Your task to perform on an android device: toggle priority inbox in the gmail app Image 0: 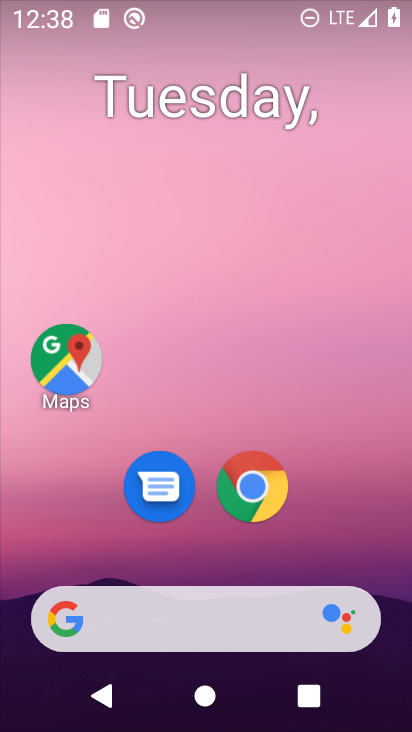
Step 0: drag from (228, 580) to (222, 164)
Your task to perform on an android device: toggle priority inbox in the gmail app Image 1: 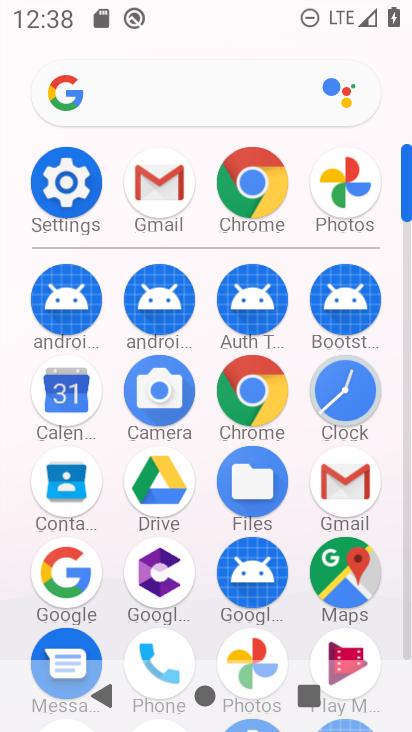
Step 1: click (347, 481)
Your task to perform on an android device: toggle priority inbox in the gmail app Image 2: 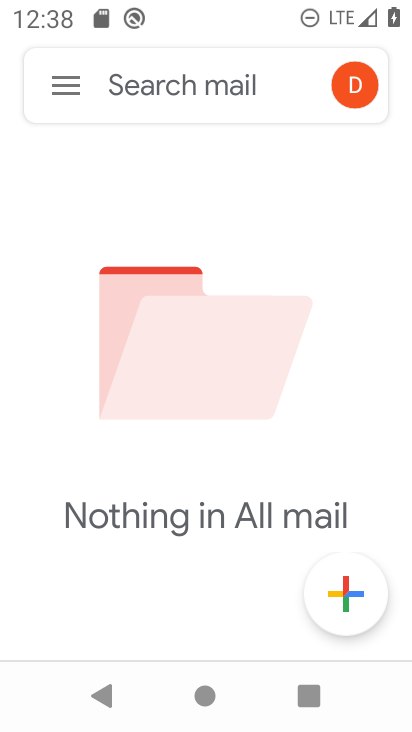
Step 2: click (60, 98)
Your task to perform on an android device: toggle priority inbox in the gmail app Image 3: 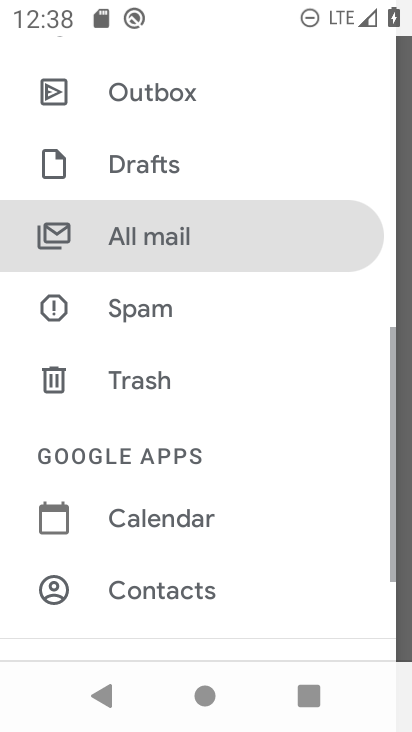
Step 3: drag from (190, 539) to (227, 84)
Your task to perform on an android device: toggle priority inbox in the gmail app Image 4: 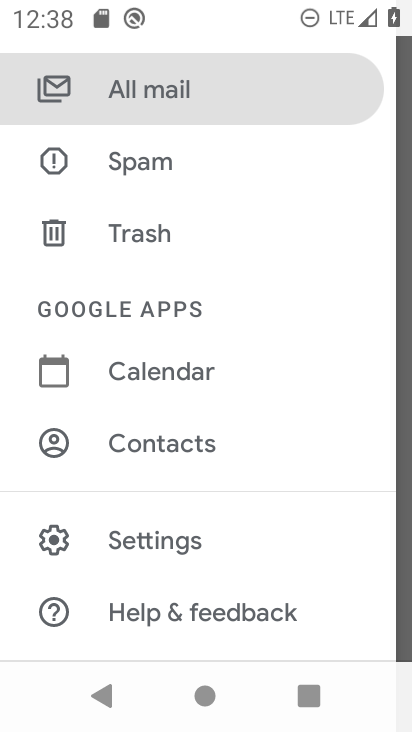
Step 4: click (161, 554)
Your task to perform on an android device: toggle priority inbox in the gmail app Image 5: 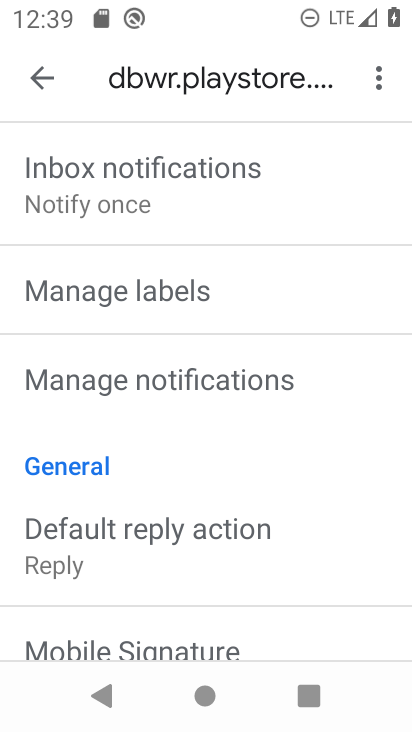
Step 5: drag from (218, 474) to (215, 311)
Your task to perform on an android device: toggle priority inbox in the gmail app Image 6: 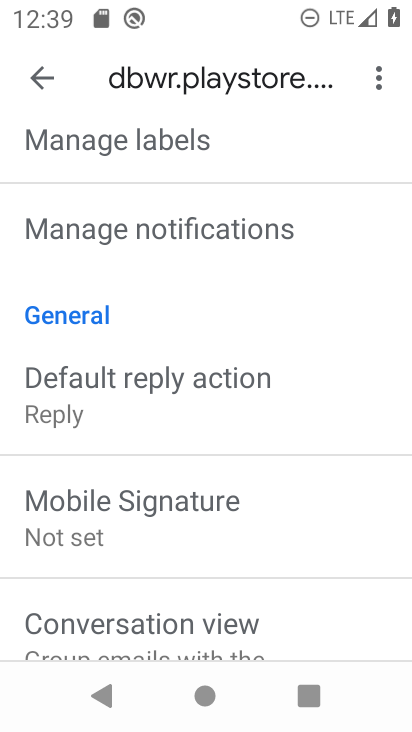
Step 6: drag from (234, 585) to (228, 264)
Your task to perform on an android device: toggle priority inbox in the gmail app Image 7: 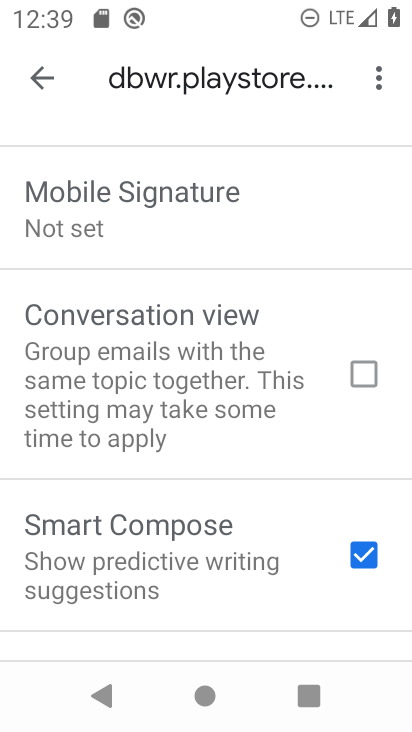
Step 7: drag from (202, 603) to (228, 705)
Your task to perform on an android device: toggle priority inbox in the gmail app Image 8: 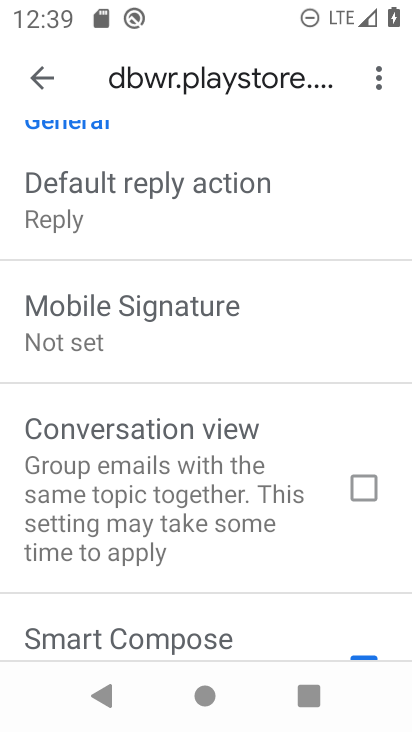
Step 8: drag from (184, 337) to (196, 640)
Your task to perform on an android device: toggle priority inbox in the gmail app Image 9: 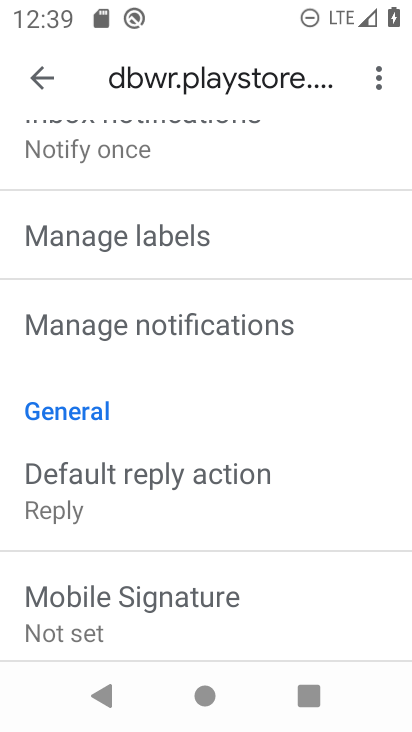
Step 9: drag from (188, 326) to (182, 567)
Your task to perform on an android device: toggle priority inbox in the gmail app Image 10: 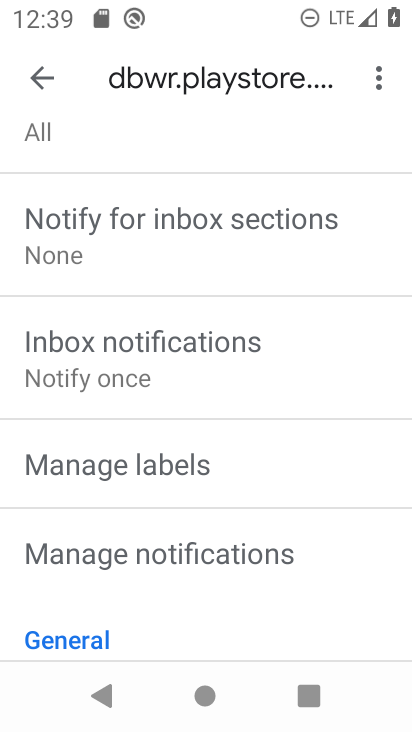
Step 10: drag from (202, 327) to (216, 220)
Your task to perform on an android device: toggle priority inbox in the gmail app Image 11: 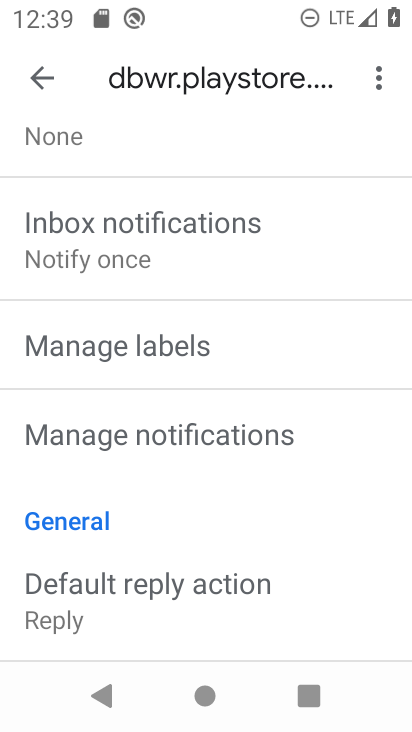
Step 11: drag from (204, 508) to (204, 263)
Your task to perform on an android device: toggle priority inbox in the gmail app Image 12: 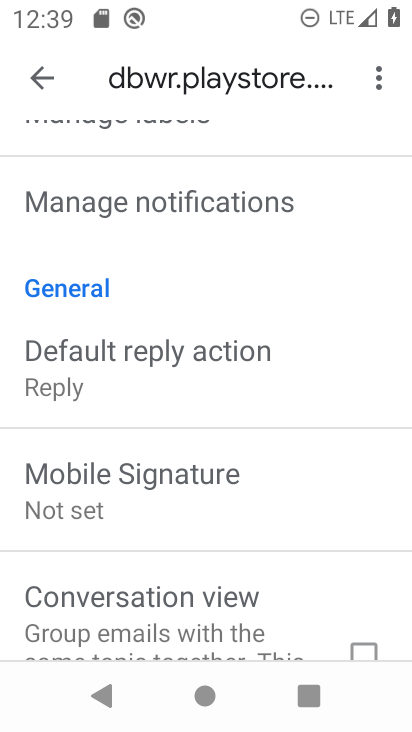
Step 12: drag from (166, 541) to (147, 643)
Your task to perform on an android device: toggle priority inbox in the gmail app Image 13: 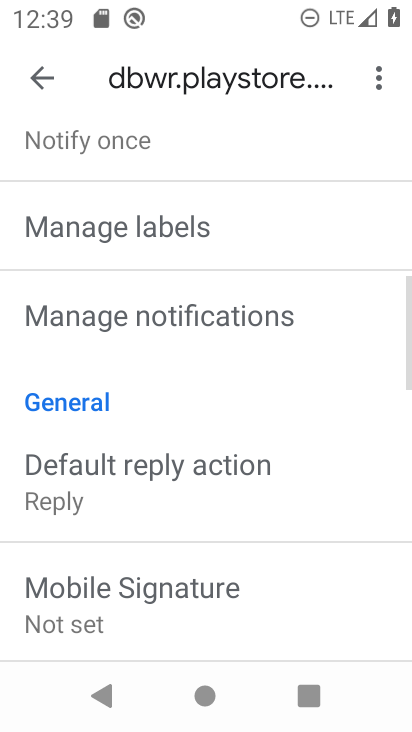
Step 13: drag from (154, 300) to (163, 529)
Your task to perform on an android device: toggle priority inbox in the gmail app Image 14: 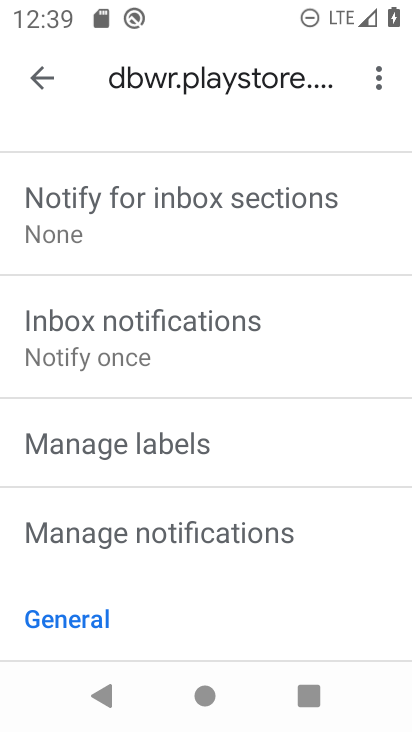
Step 14: drag from (167, 290) to (136, 626)
Your task to perform on an android device: toggle priority inbox in the gmail app Image 15: 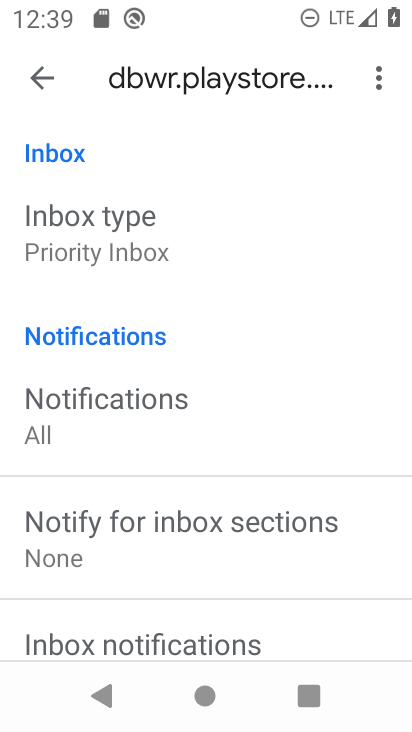
Step 15: click (178, 259)
Your task to perform on an android device: toggle priority inbox in the gmail app Image 16: 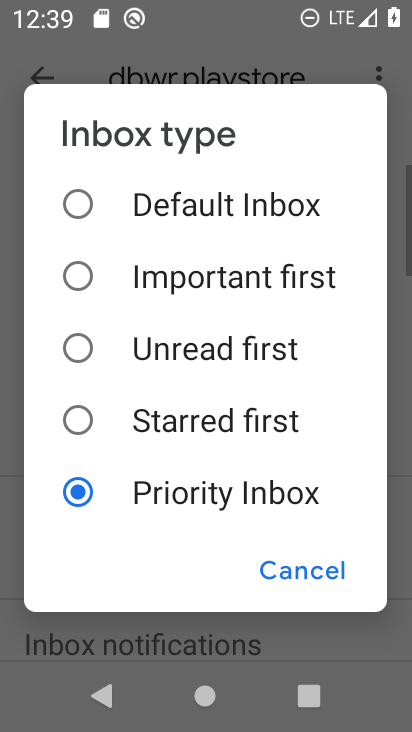
Step 16: click (169, 206)
Your task to perform on an android device: toggle priority inbox in the gmail app Image 17: 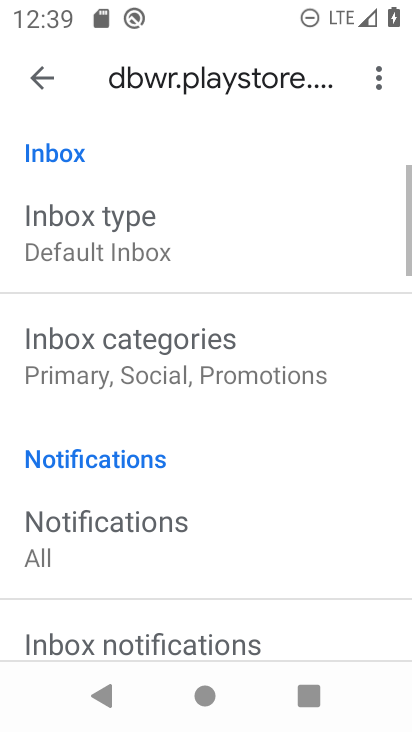
Step 17: task complete